Your task to perform on an android device: stop showing notifications on the lock screen Image 0: 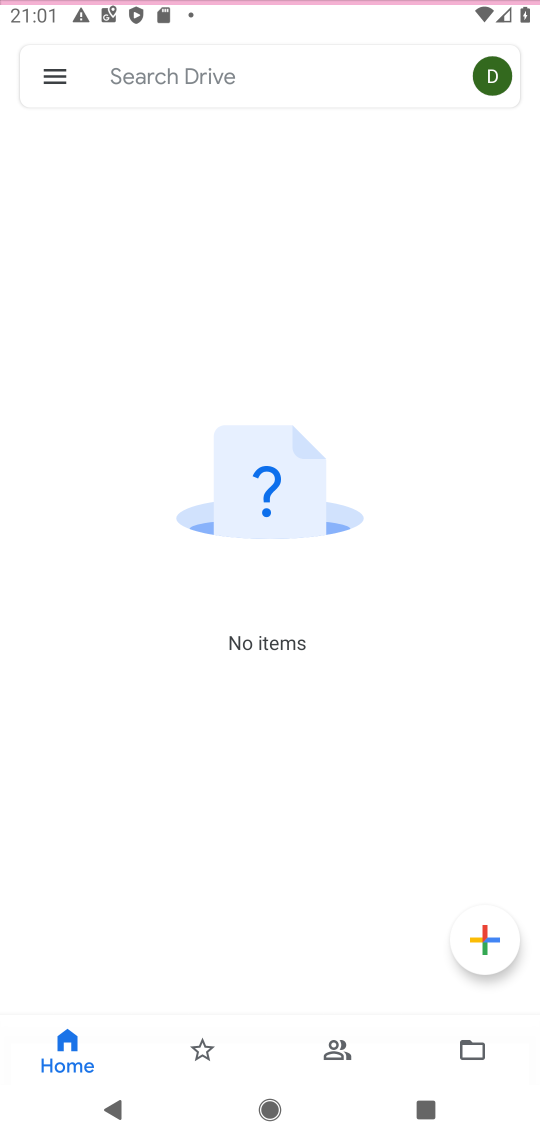
Step 0: press home button
Your task to perform on an android device: stop showing notifications on the lock screen Image 1: 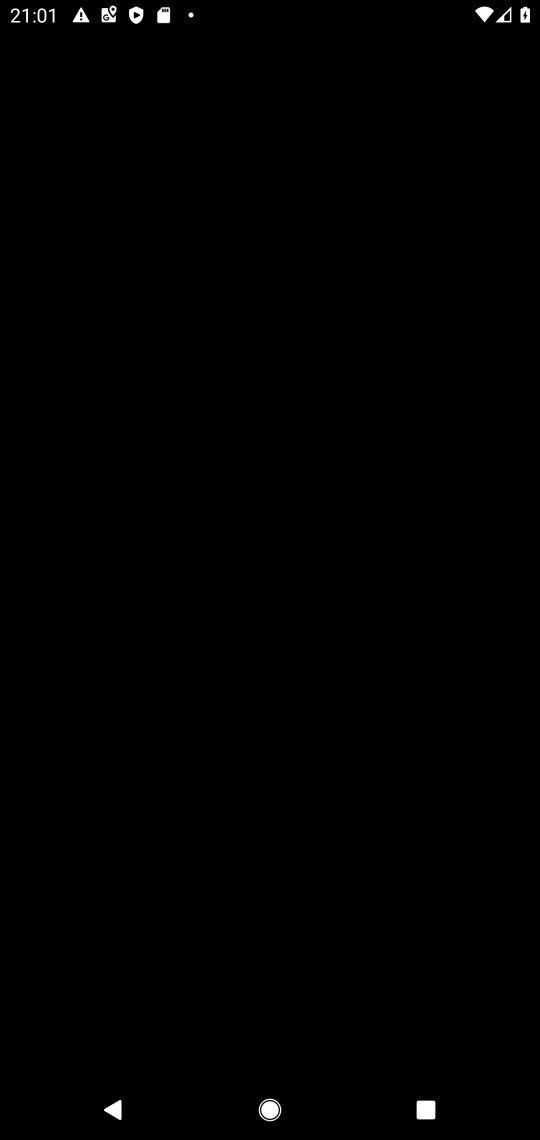
Step 1: press home button
Your task to perform on an android device: stop showing notifications on the lock screen Image 2: 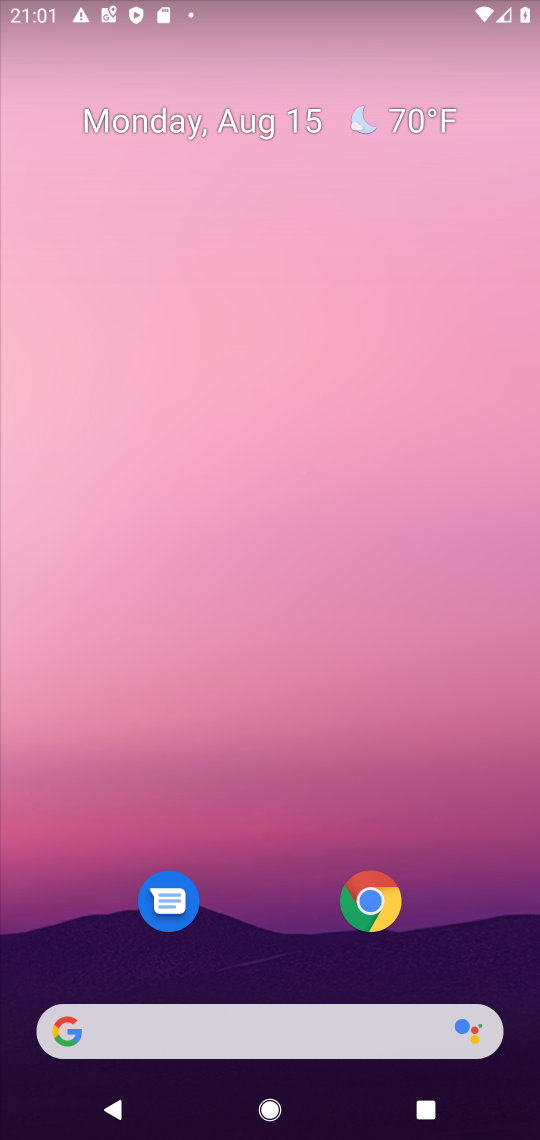
Step 2: drag from (264, 950) to (380, 89)
Your task to perform on an android device: stop showing notifications on the lock screen Image 3: 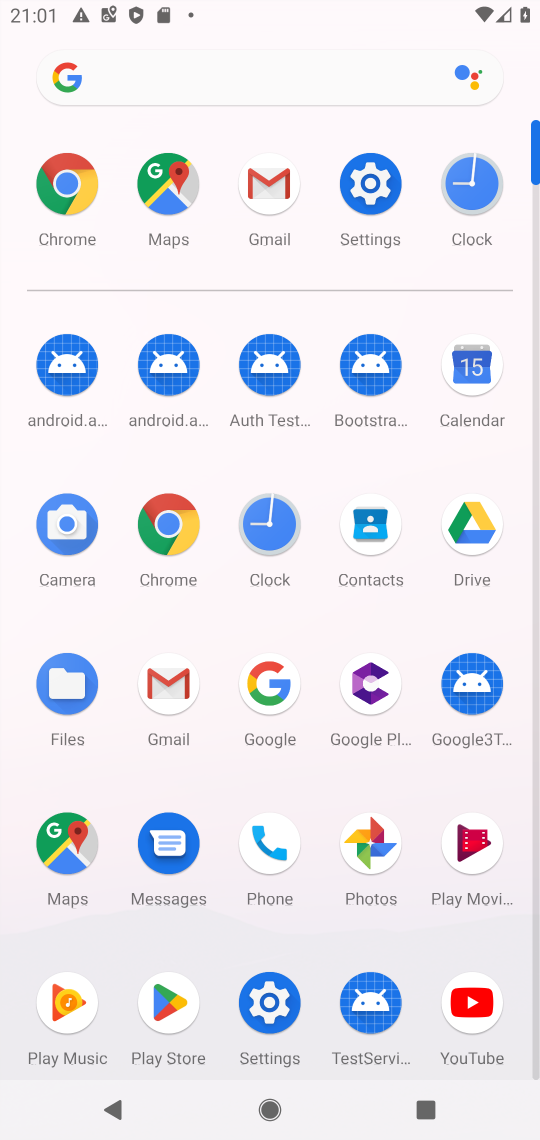
Step 3: click (371, 215)
Your task to perform on an android device: stop showing notifications on the lock screen Image 4: 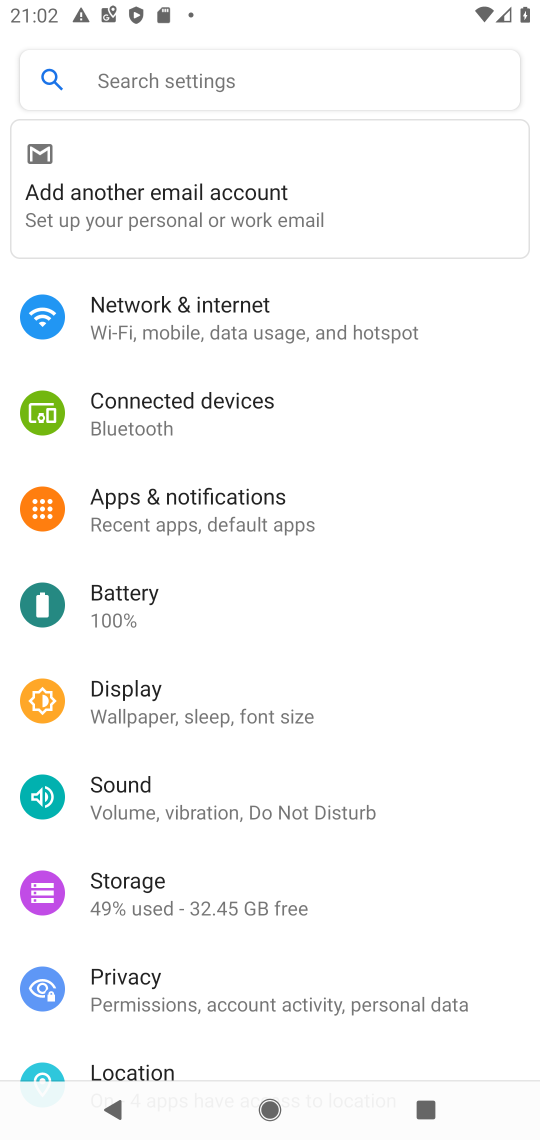
Step 4: click (222, 479)
Your task to perform on an android device: stop showing notifications on the lock screen Image 5: 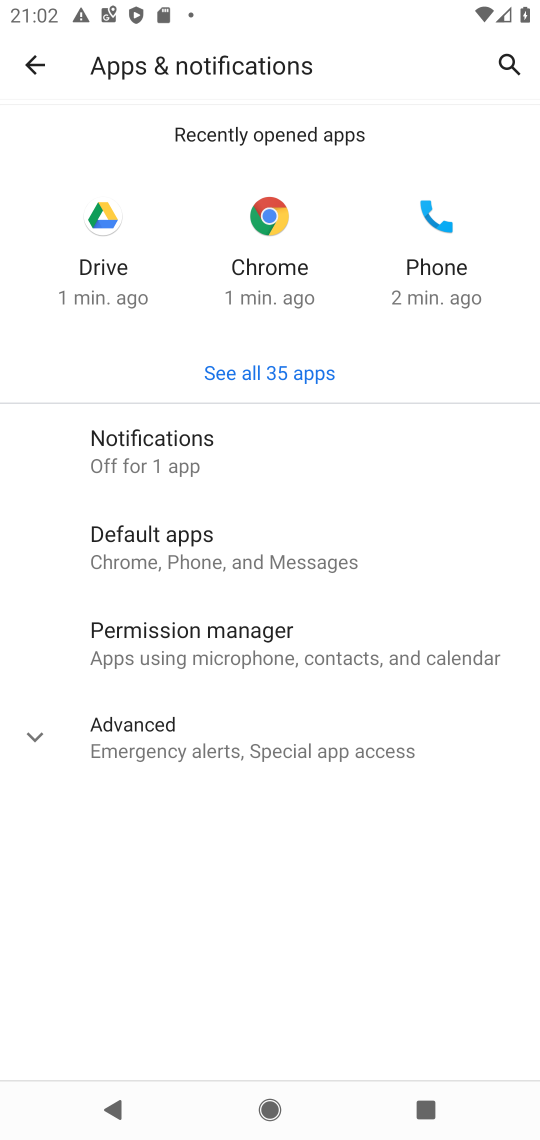
Step 5: click (206, 459)
Your task to perform on an android device: stop showing notifications on the lock screen Image 6: 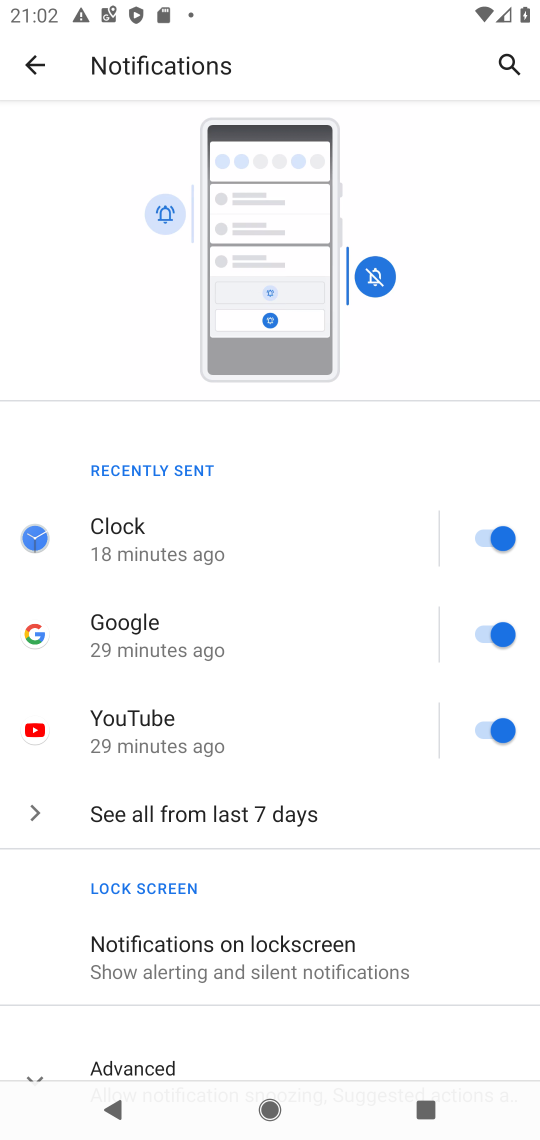
Step 6: click (235, 969)
Your task to perform on an android device: stop showing notifications on the lock screen Image 7: 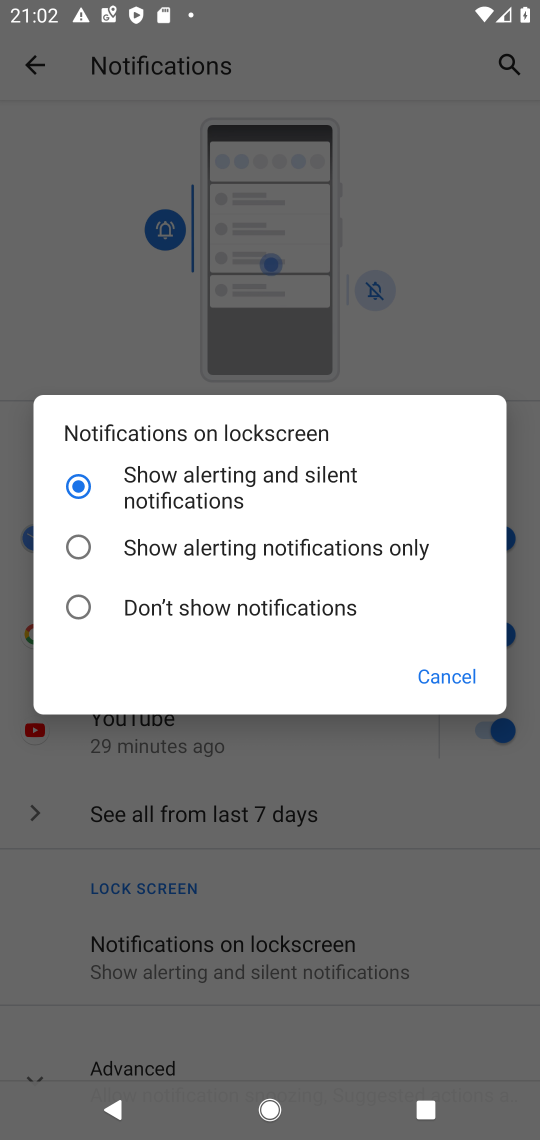
Step 7: click (159, 621)
Your task to perform on an android device: stop showing notifications on the lock screen Image 8: 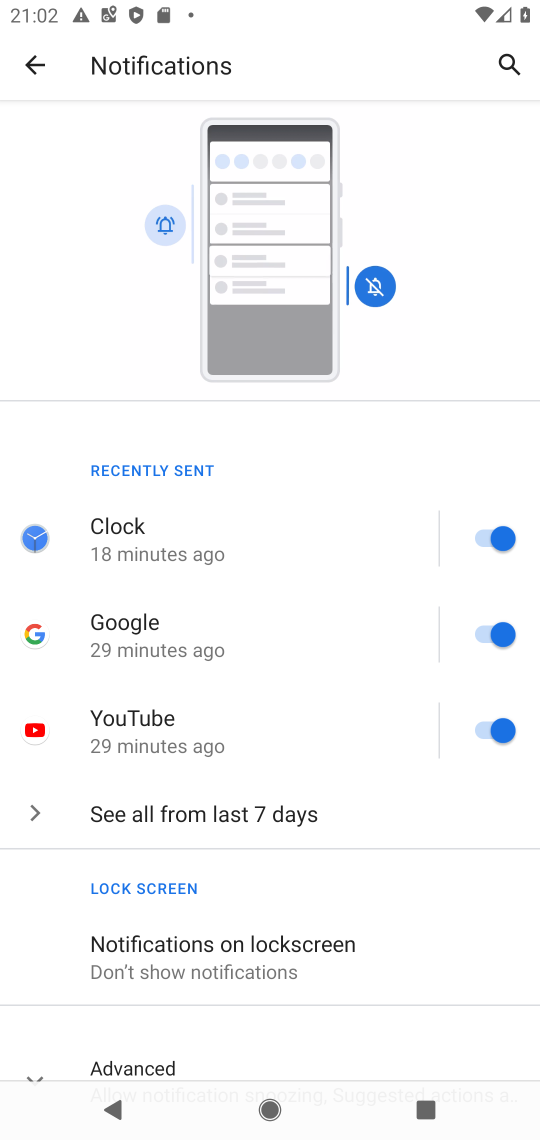
Step 8: task complete